Your task to perform on an android device: What's the weather today? Image 0: 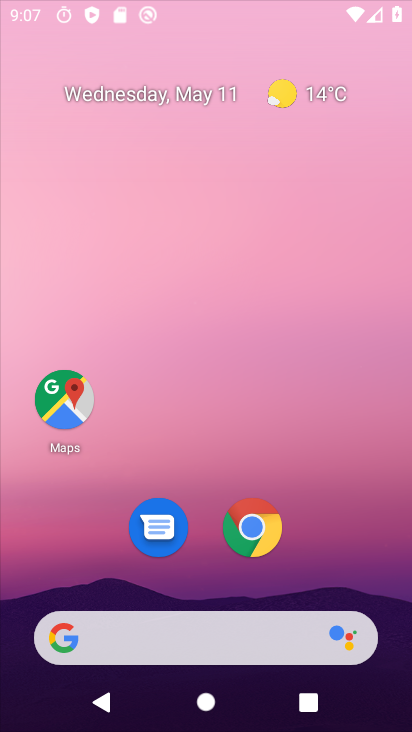
Step 0: drag from (175, 640) to (203, 60)
Your task to perform on an android device: What's the weather today? Image 1: 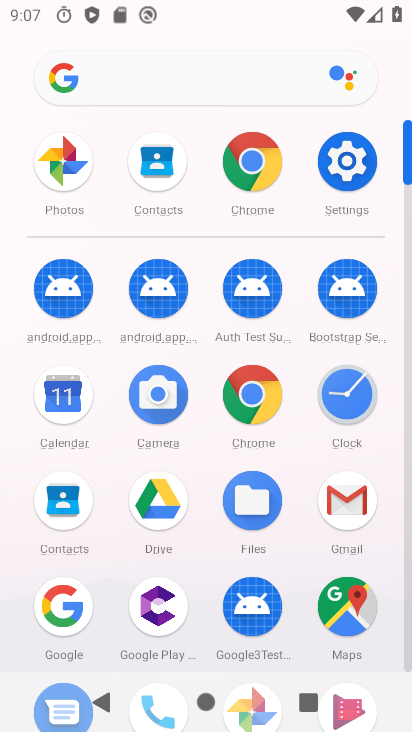
Step 1: drag from (222, 497) to (226, 298)
Your task to perform on an android device: What's the weather today? Image 2: 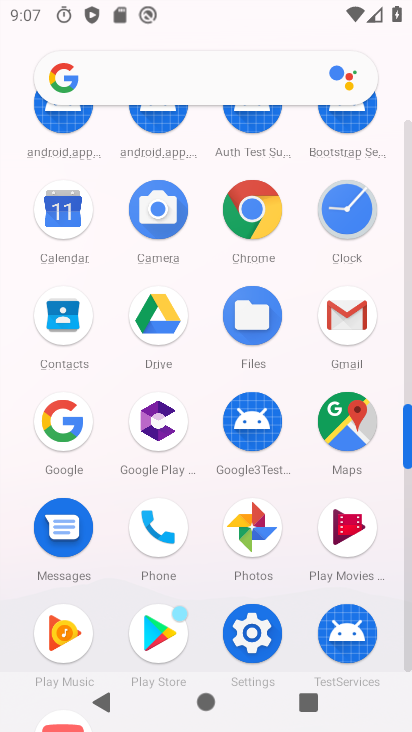
Step 2: drag from (212, 451) to (210, 317)
Your task to perform on an android device: What's the weather today? Image 3: 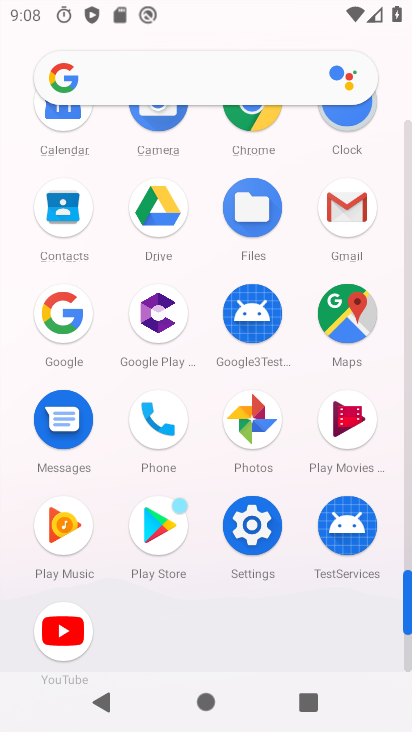
Step 3: click (77, 331)
Your task to perform on an android device: What's the weather today? Image 4: 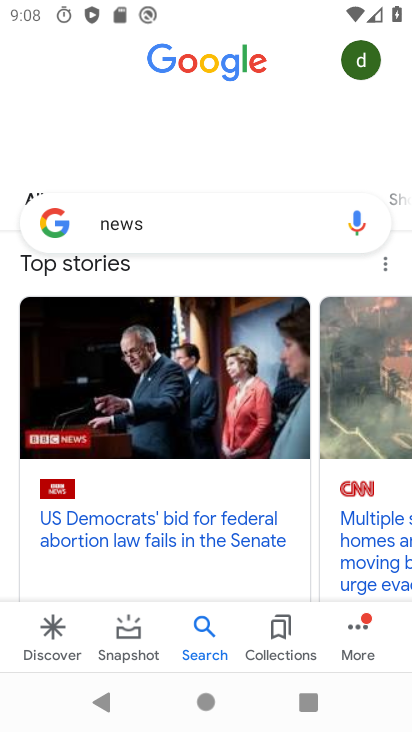
Step 4: click (170, 224)
Your task to perform on an android device: What's the weather today? Image 5: 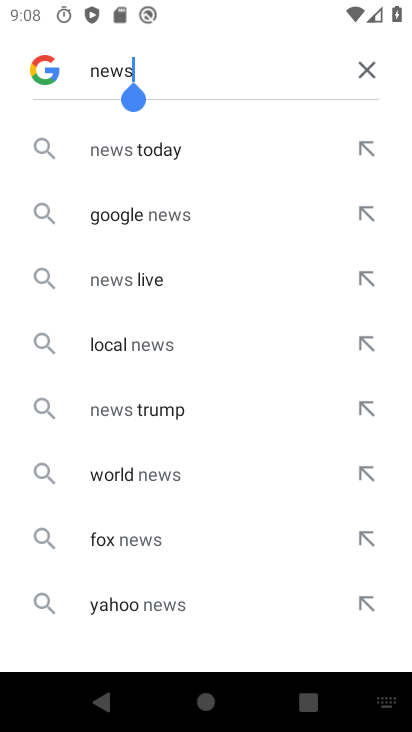
Step 5: click (371, 70)
Your task to perform on an android device: What's the weather today? Image 6: 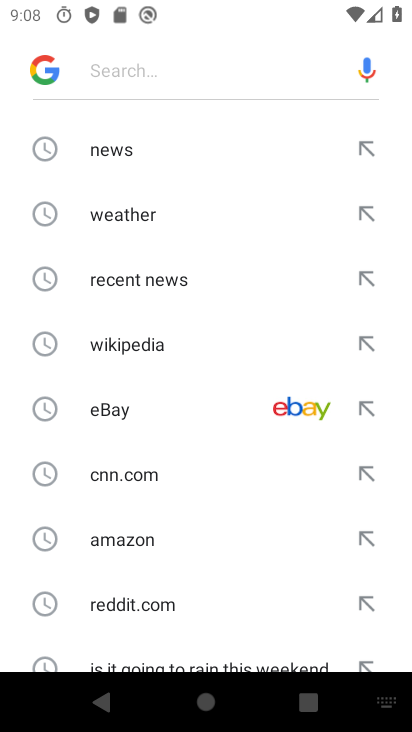
Step 6: click (153, 225)
Your task to perform on an android device: What's the weather today? Image 7: 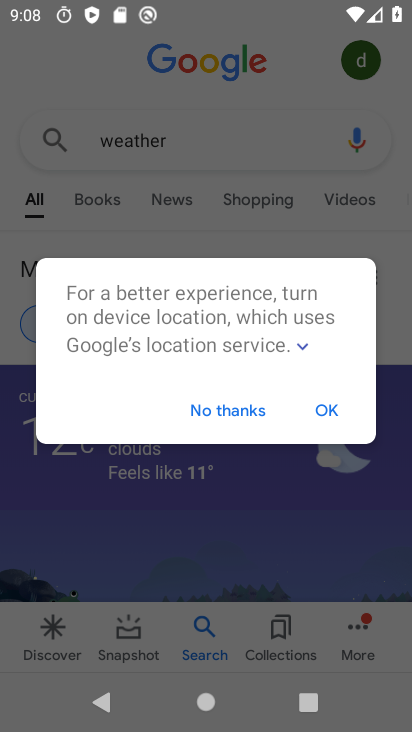
Step 7: click (227, 411)
Your task to perform on an android device: What's the weather today? Image 8: 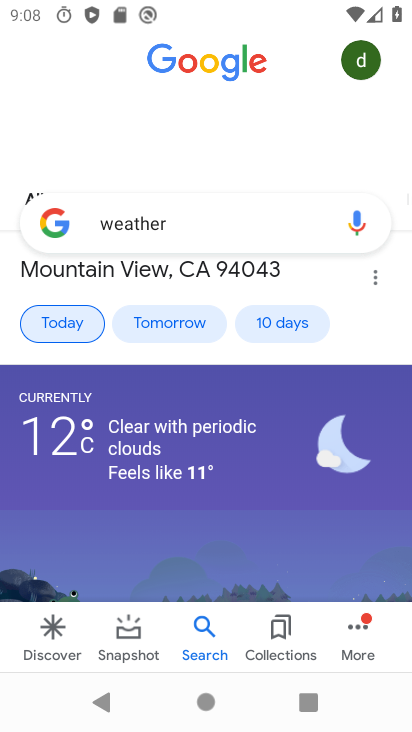
Step 8: task complete